Your task to perform on an android device: open chrome and create a bookmark for the current page Image 0: 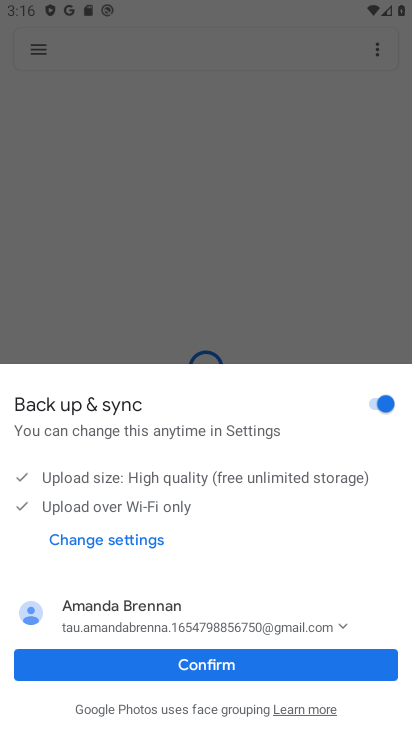
Step 0: press home button
Your task to perform on an android device: open chrome and create a bookmark for the current page Image 1: 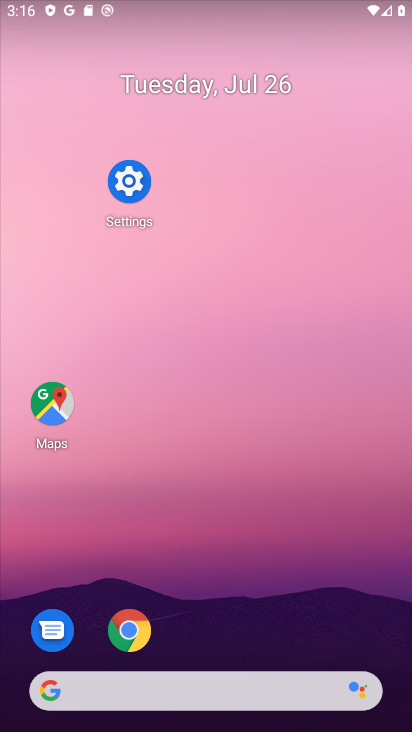
Step 1: click (129, 174)
Your task to perform on an android device: open chrome and create a bookmark for the current page Image 2: 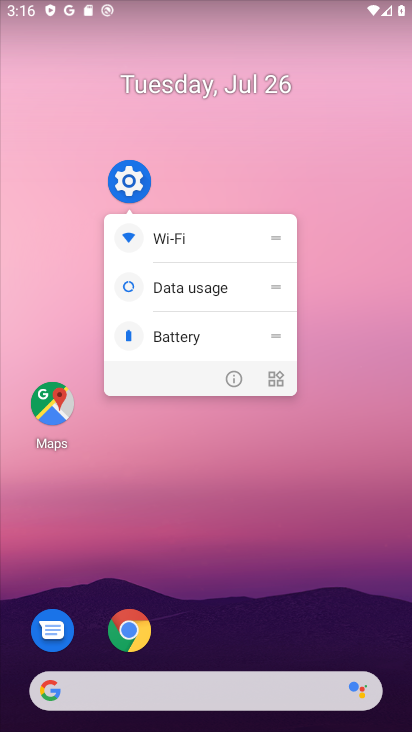
Step 2: click (132, 181)
Your task to perform on an android device: open chrome and create a bookmark for the current page Image 3: 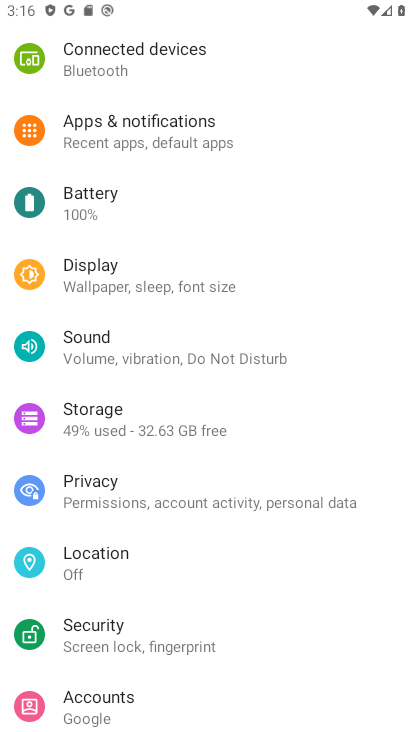
Step 3: drag from (291, 558) to (316, 317)
Your task to perform on an android device: open chrome and create a bookmark for the current page Image 4: 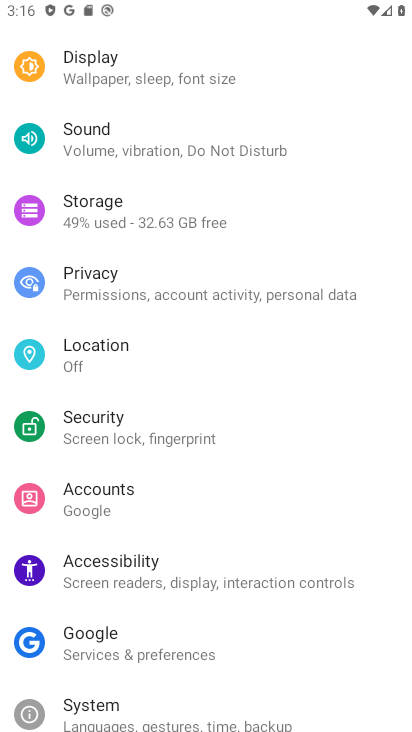
Step 4: click (182, 561)
Your task to perform on an android device: open chrome and create a bookmark for the current page Image 5: 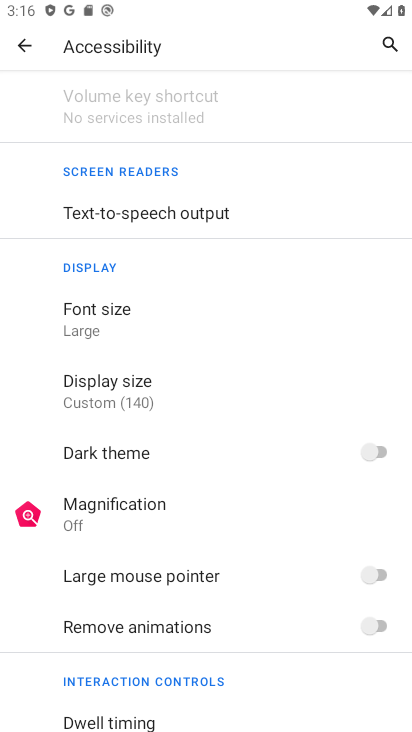
Step 5: task complete